Your task to perform on an android device: read, delete, or share a saved page in the chrome app Image 0: 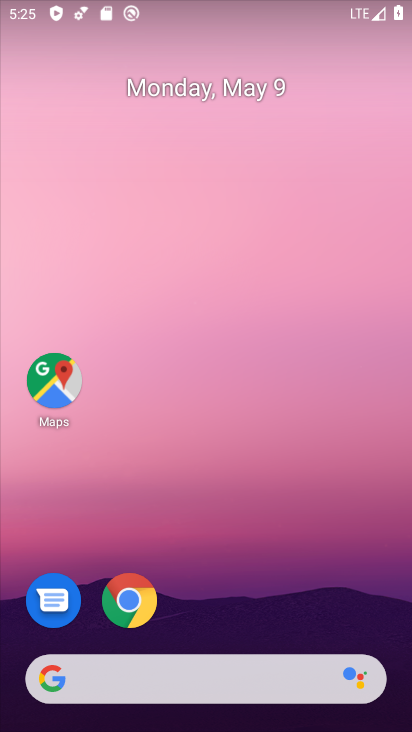
Step 0: click (136, 593)
Your task to perform on an android device: read, delete, or share a saved page in the chrome app Image 1: 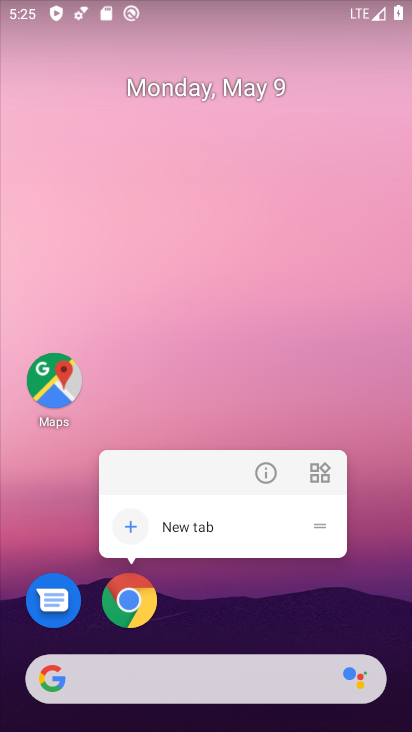
Step 1: click (267, 469)
Your task to perform on an android device: read, delete, or share a saved page in the chrome app Image 2: 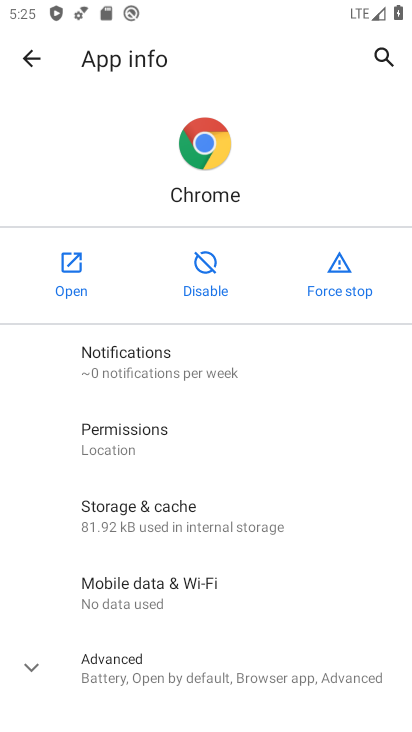
Step 2: click (70, 290)
Your task to perform on an android device: read, delete, or share a saved page in the chrome app Image 3: 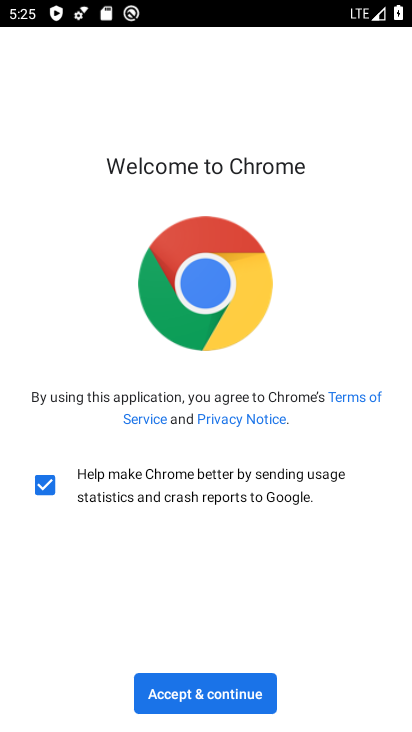
Step 3: click (219, 692)
Your task to perform on an android device: read, delete, or share a saved page in the chrome app Image 4: 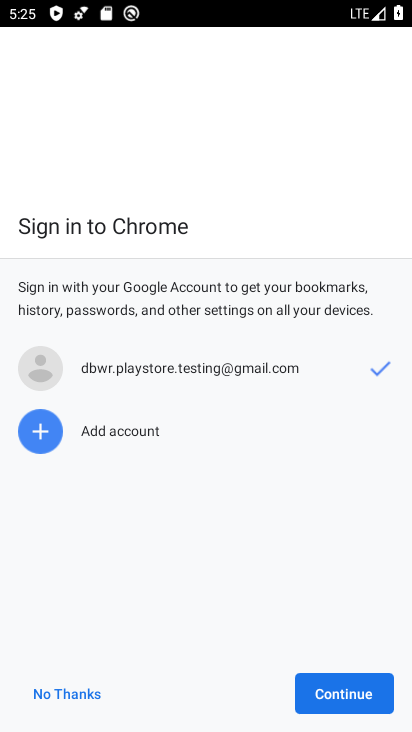
Step 4: click (343, 700)
Your task to perform on an android device: read, delete, or share a saved page in the chrome app Image 5: 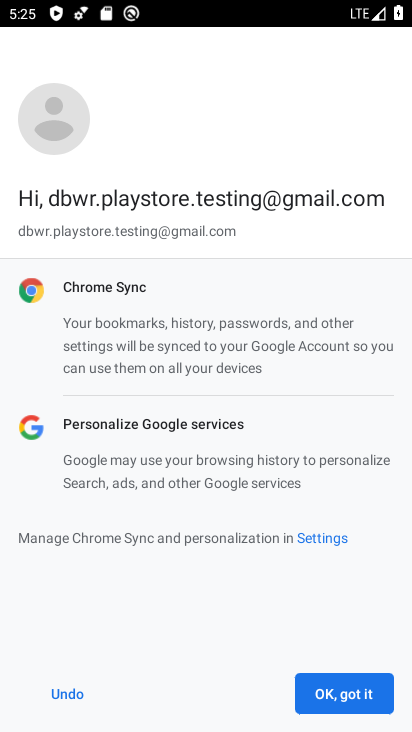
Step 5: click (344, 700)
Your task to perform on an android device: read, delete, or share a saved page in the chrome app Image 6: 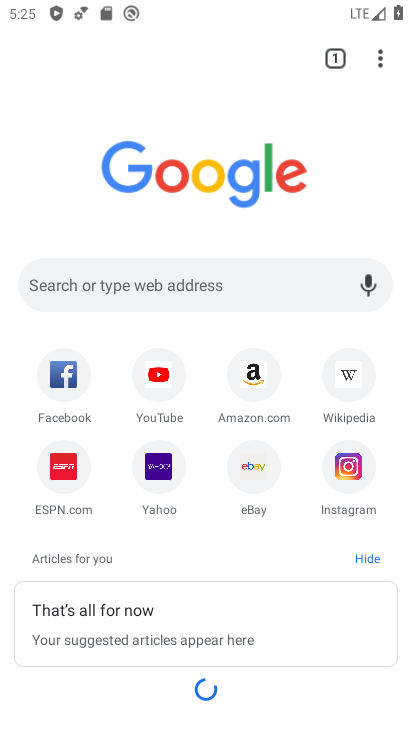
Step 6: click (382, 63)
Your task to perform on an android device: read, delete, or share a saved page in the chrome app Image 7: 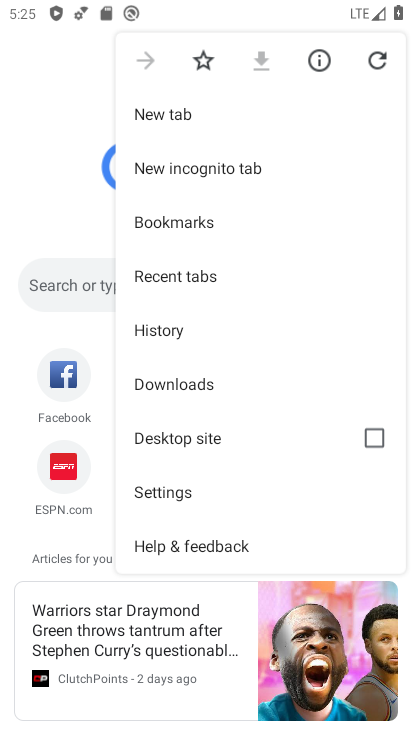
Step 7: click (205, 380)
Your task to perform on an android device: read, delete, or share a saved page in the chrome app Image 8: 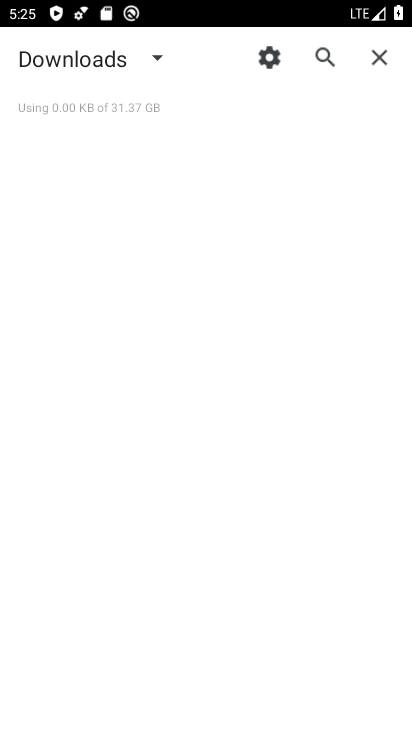
Step 8: task complete